Your task to perform on an android device: Open Wikipedia Image 0: 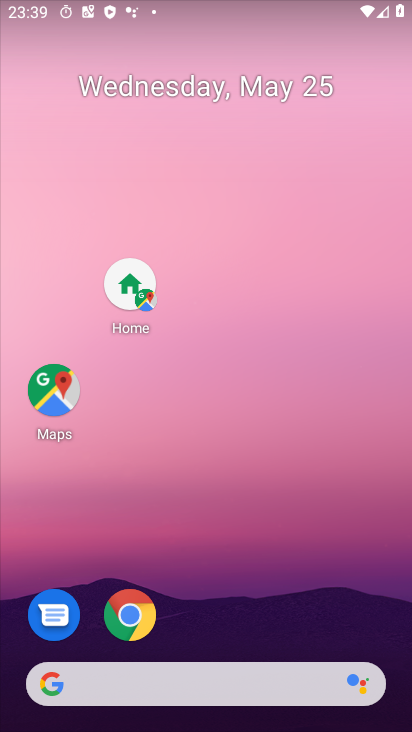
Step 0: press home button
Your task to perform on an android device: Open Wikipedia Image 1: 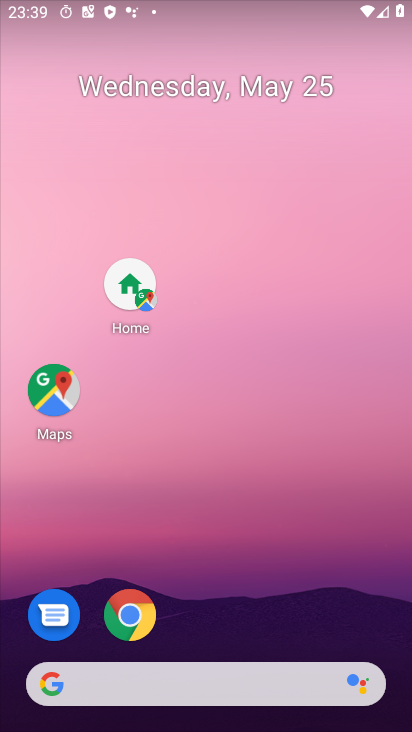
Step 1: click (47, 677)
Your task to perform on an android device: Open Wikipedia Image 2: 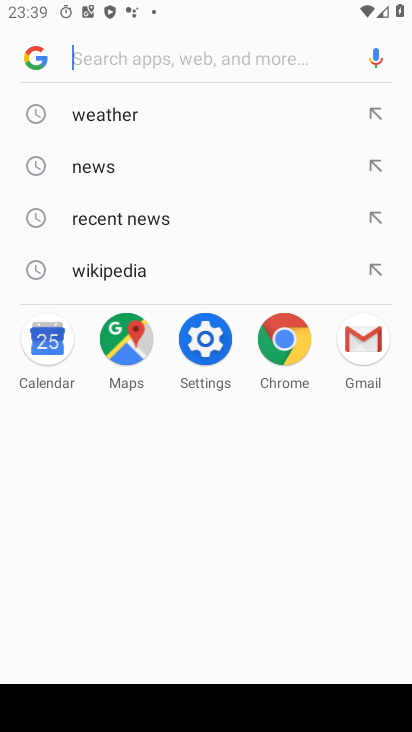
Step 2: click (107, 267)
Your task to perform on an android device: Open Wikipedia Image 3: 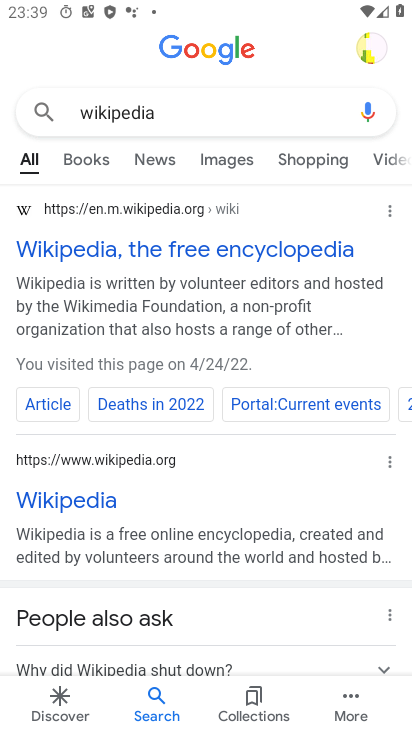
Step 3: click (160, 249)
Your task to perform on an android device: Open Wikipedia Image 4: 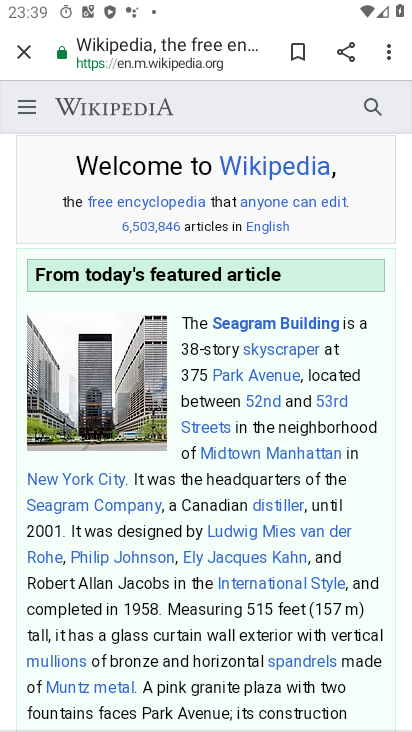
Step 4: task complete